Your task to perform on an android device: Search for "duracell triple a" on ebay, select the first entry, and add it to the cart. Image 0: 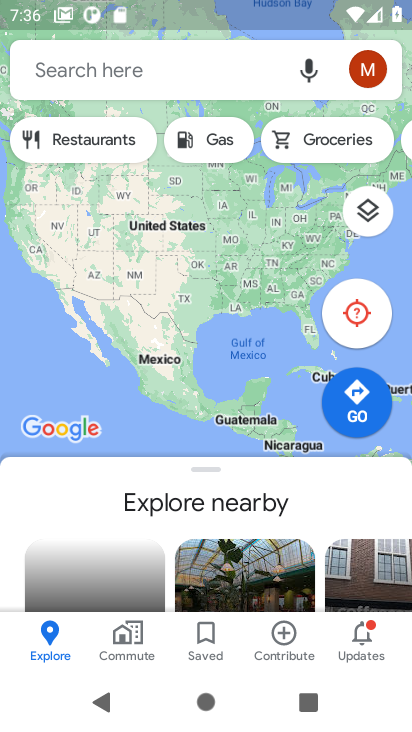
Step 0: task complete